Your task to perform on an android device: turn off smart reply in the gmail app Image 0: 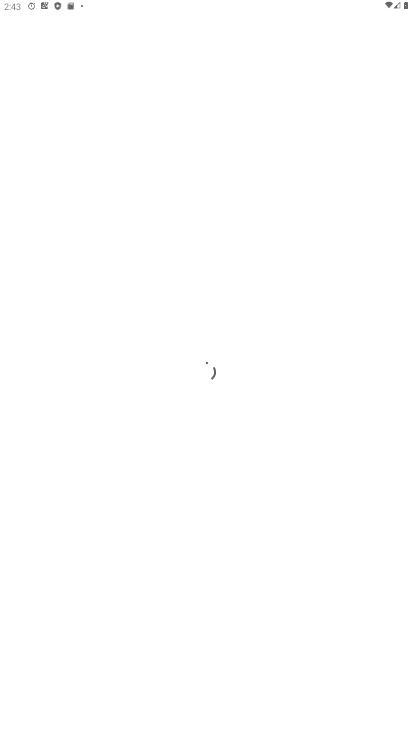
Step 0: click (280, 448)
Your task to perform on an android device: turn off smart reply in the gmail app Image 1: 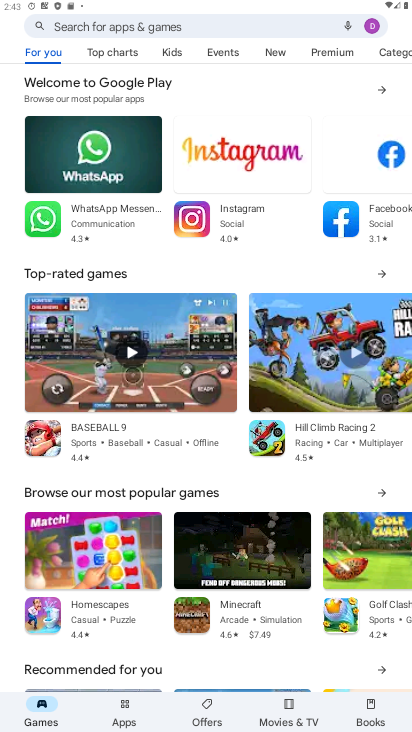
Step 1: press home button
Your task to perform on an android device: turn off smart reply in the gmail app Image 2: 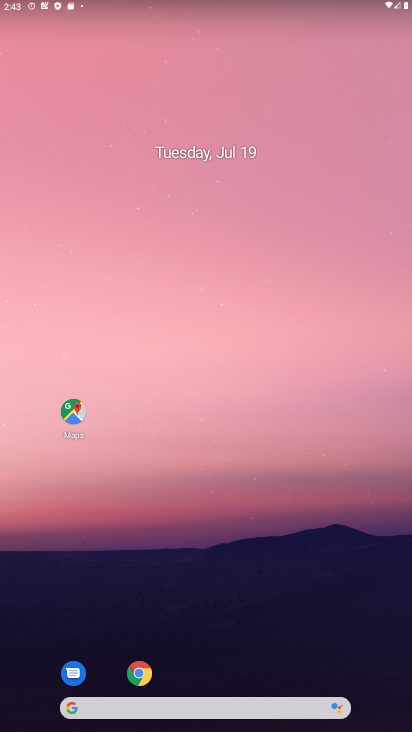
Step 2: drag from (205, 671) to (215, 261)
Your task to perform on an android device: turn off smart reply in the gmail app Image 3: 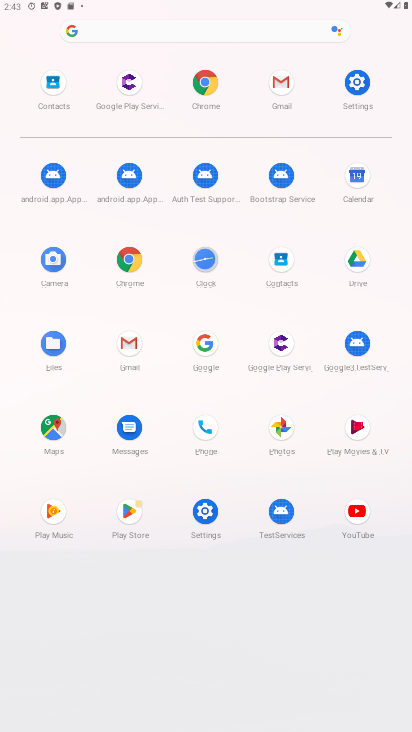
Step 3: click (126, 359)
Your task to perform on an android device: turn off smart reply in the gmail app Image 4: 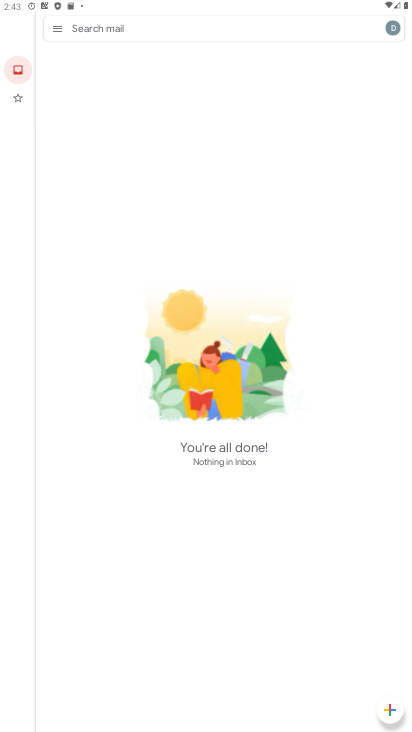
Step 4: click (62, 26)
Your task to perform on an android device: turn off smart reply in the gmail app Image 5: 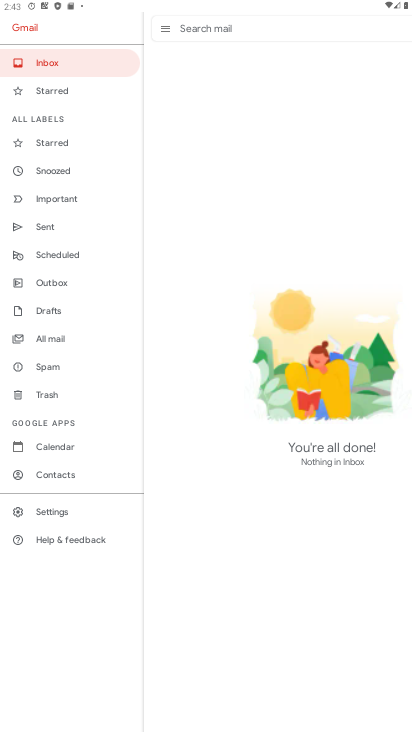
Step 5: click (46, 514)
Your task to perform on an android device: turn off smart reply in the gmail app Image 6: 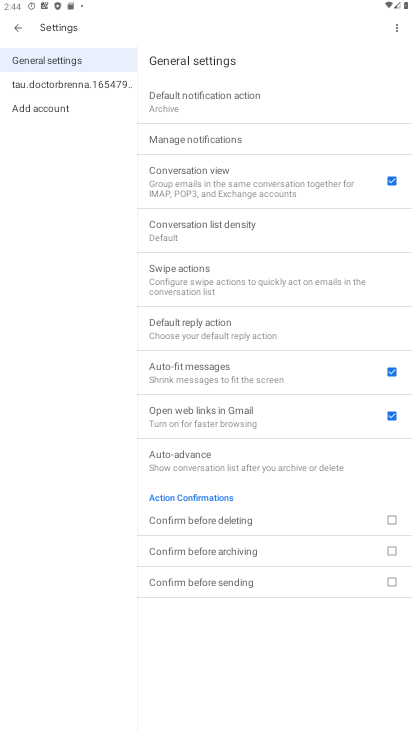
Step 6: click (68, 90)
Your task to perform on an android device: turn off smart reply in the gmail app Image 7: 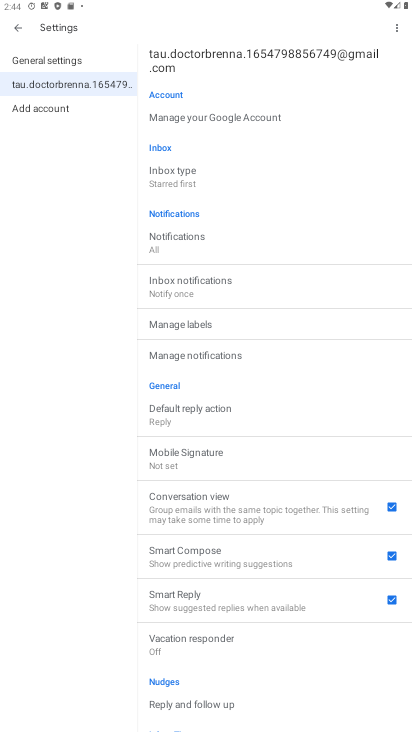
Step 7: click (345, 594)
Your task to perform on an android device: turn off smart reply in the gmail app Image 8: 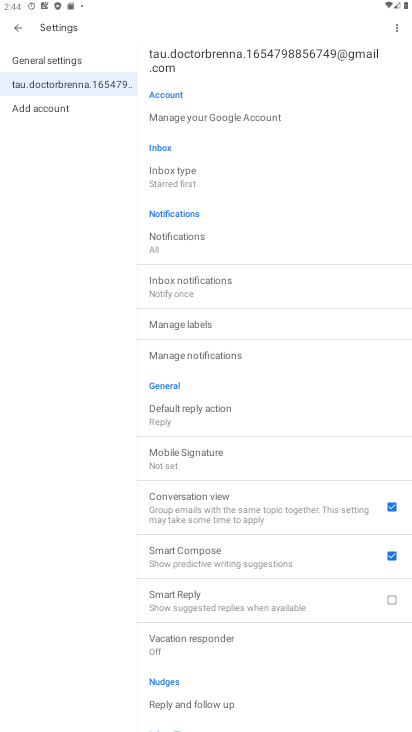
Step 8: task complete